Your task to perform on an android device: set an alarm Image 0: 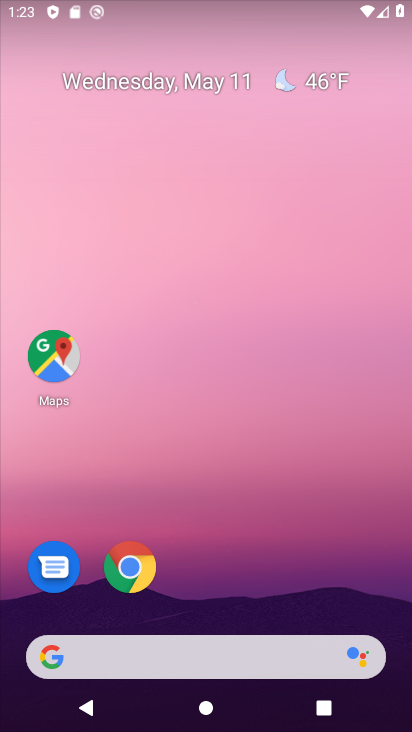
Step 0: drag from (200, 639) to (102, 9)
Your task to perform on an android device: set an alarm Image 1: 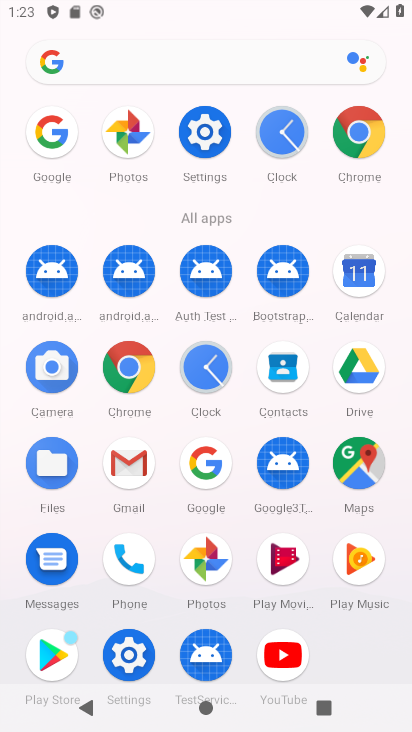
Step 1: click (209, 360)
Your task to perform on an android device: set an alarm Image 2: 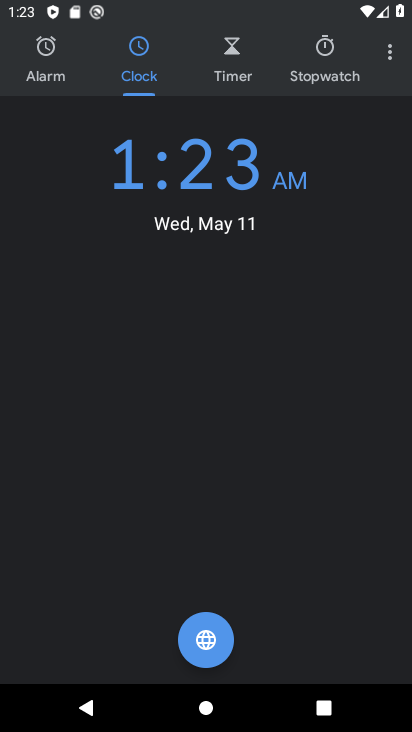
Step 2: click (56, 49)
Your task to perform on an android device: set an alarm Image 3: 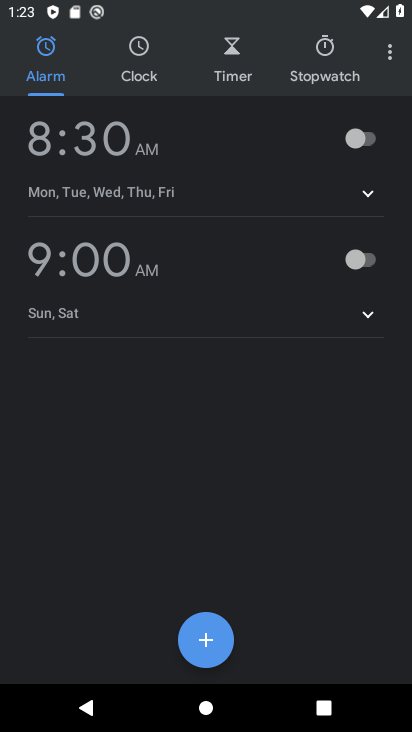
Step 3: click (197, 658)
Your task to perform on an android device: set an alarm Image 4: 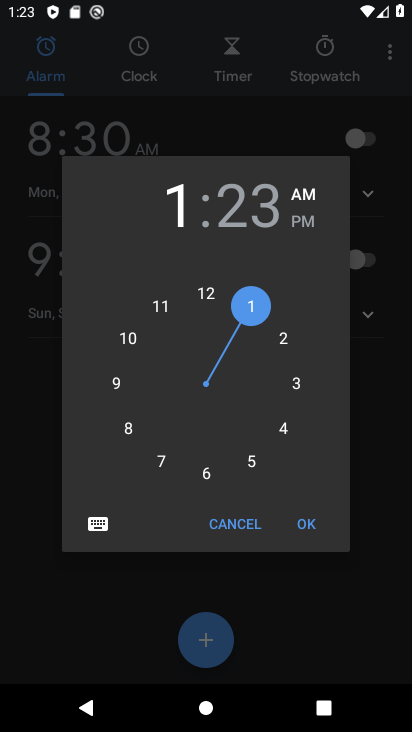
Step 4: click (296, 528)
Your task to perform on an android device: set an alarm Image 5: 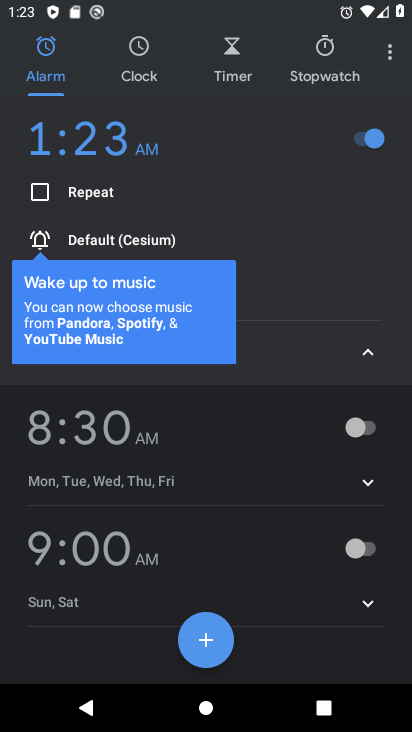
Step 5: task complete